Your task to perform on an android device: Open wifi settings Image 0: 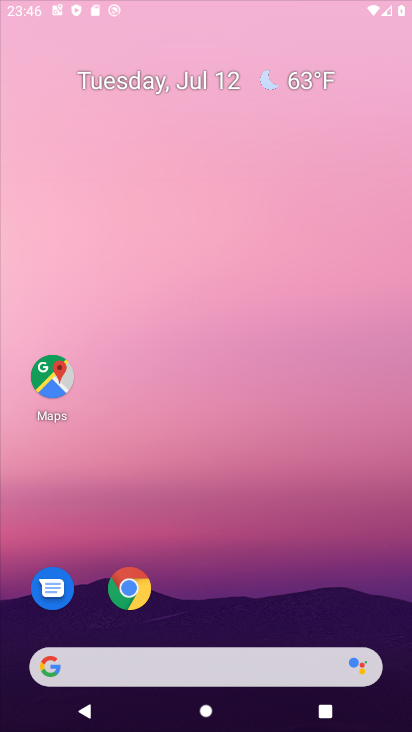
Step 0: drag from (23, 720) to (217, 0)
Your task to perform on an android device: Open wifi settings Image 1: 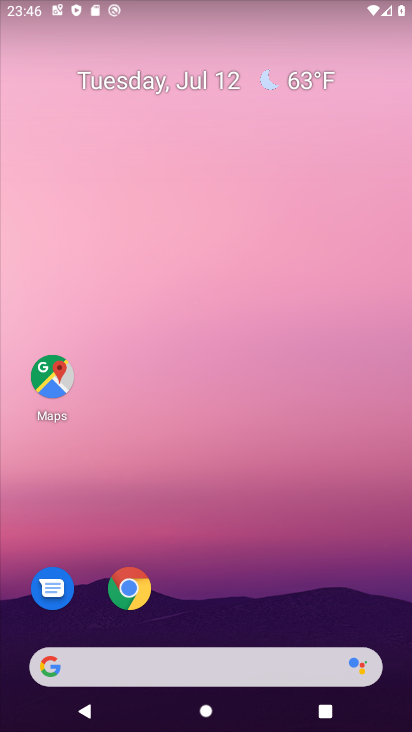
Step 1: drag from (21, 721) to (247, 27)
Your task to perform on an android device: Open wifi settings Image 2: 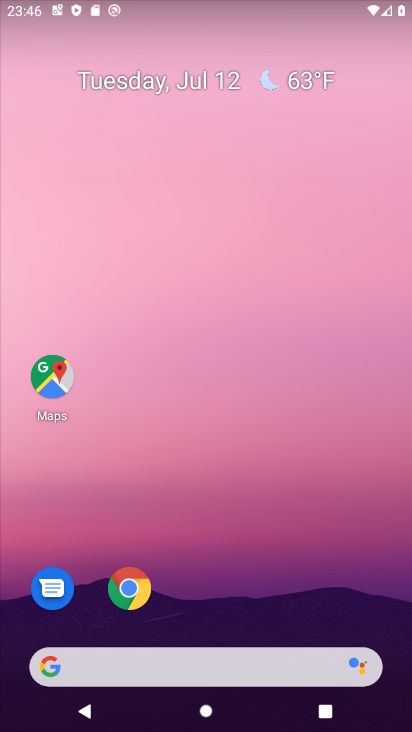
Step 2: drag from (39, 712) to (224, 45)
Your task to perform on an android device: Open wifi settings Image 3: 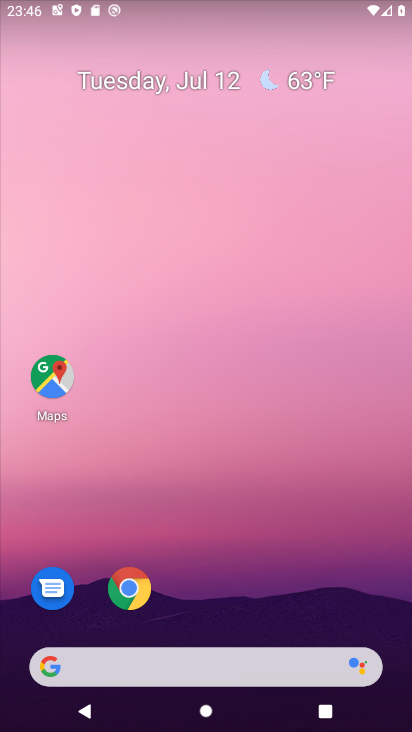
Step 3: drag from (121, 715) to (231, 131)
Your task to perform on an android device: Open wifi settings Image 4: 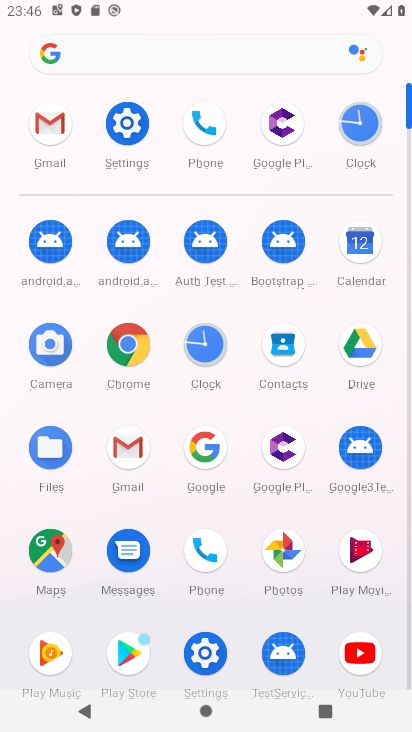
Step 4: click (204, 658)
Your task to perform on an android device: Open wifi settings Image 5: 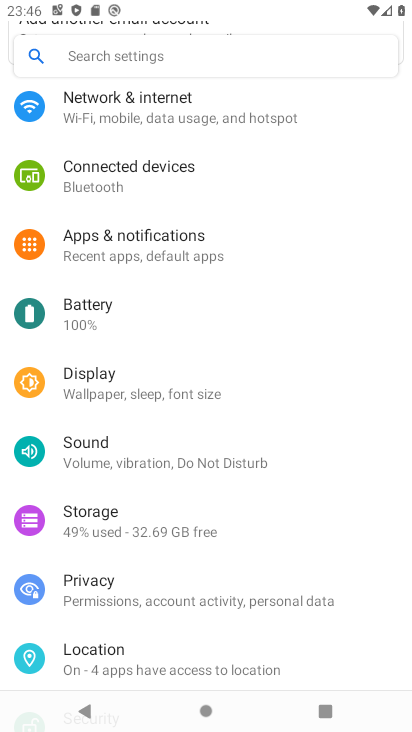
Step 5: drag from (294, 93) to (276, 563)
Your task to perform on an android device: Open wifi settings Image 6: 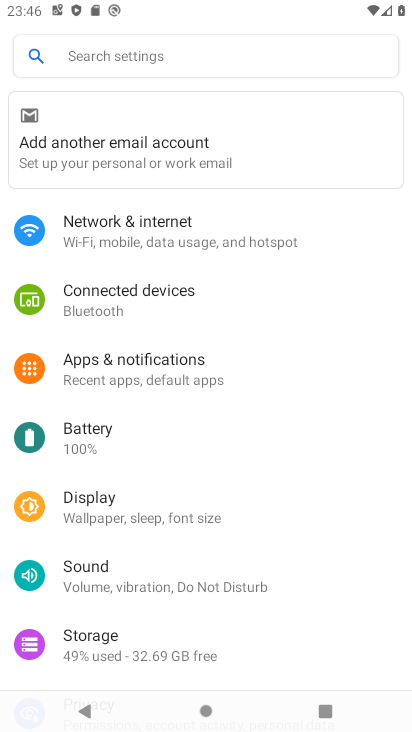
Step 6: click (140, 237)
Your task to perform on an android device: Open wifi settings Image 7: 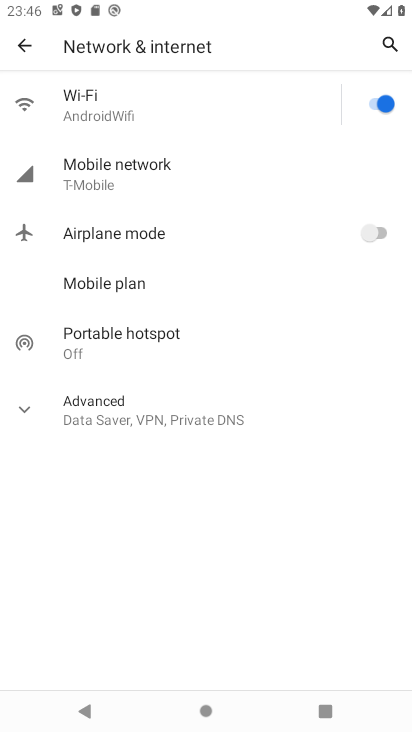
Step 7: task complete